Your task to perform on an android device: Turn on the flashlight Image 0: 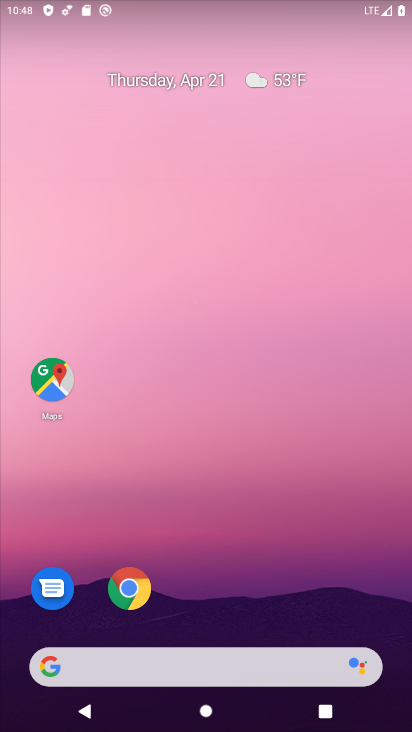
Step 0: drag from (231, 7) to (310, 315)
Your task to perform on an android device: Turn on the flashlight Image 1: 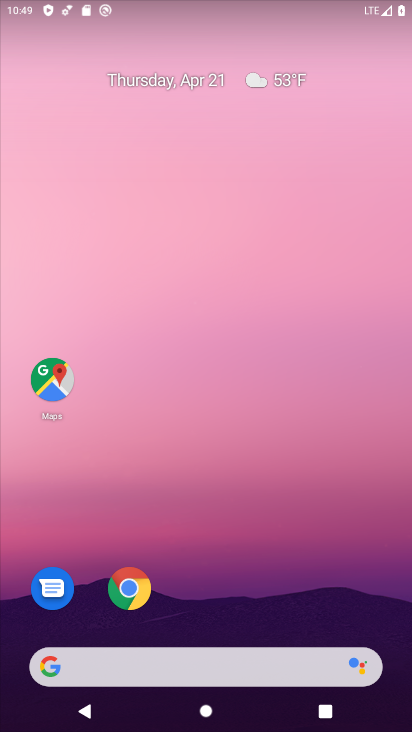
Step 1: drag from (297, 5) to (398, 500)
Your task to perform on an android device: Turn on the flashlight Image 2: 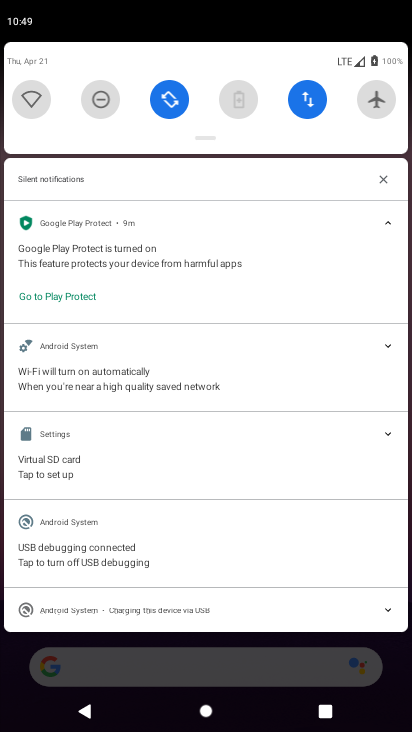
Step 2: drag from (254, 192) to (339, 469)
Your task to perform on an android device: Turn on the flashlight Image 3: 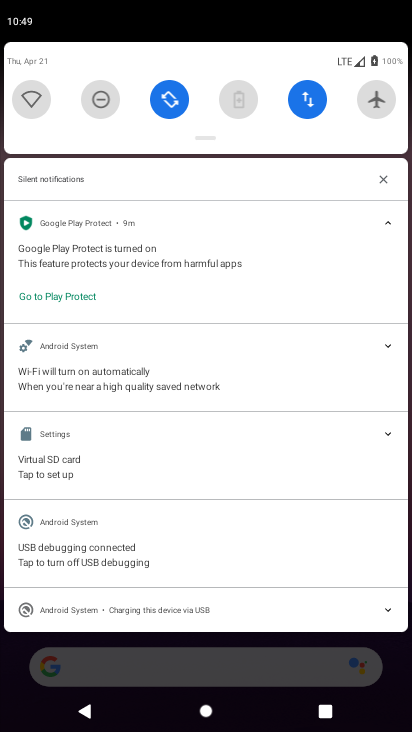
Step 3: drag from (233, 125) to (278, 394)
Your task to perform on an android device: Turn on the flashlight Image 4: 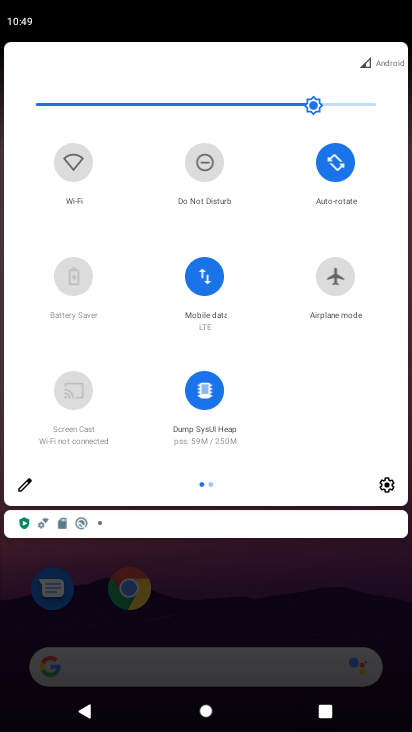
Step 4: click (23, 483)
Your task to perform on an android device: Turn on the flashlight Image 5: 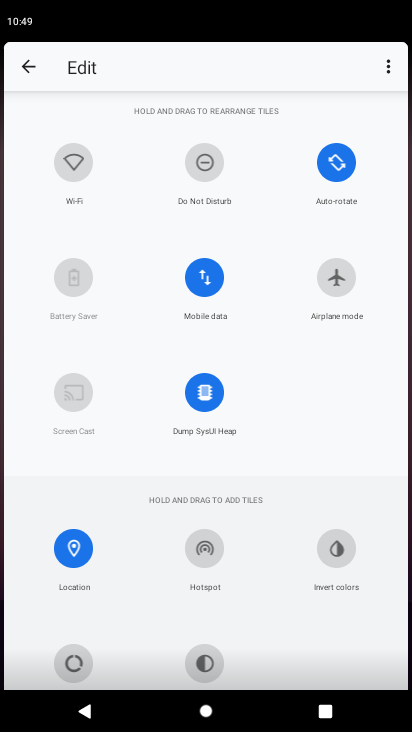
Step 5: task complete